Your task to perform on an android device: move an email to a new category in the gmail app Image 0: 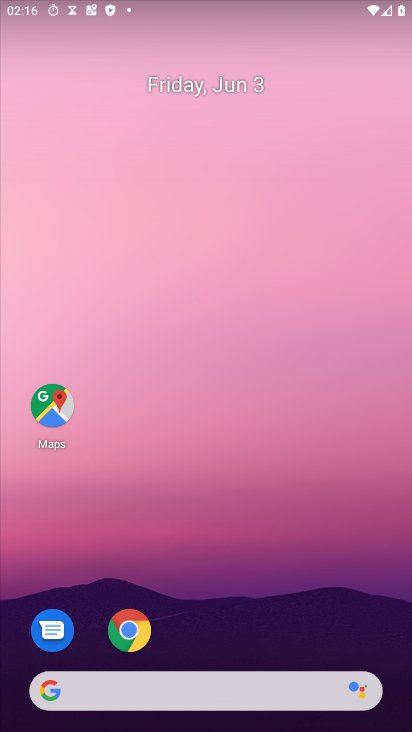
Step 0: drag from (253, 610) to (235, 17)
Your task to perform on an android device: move an email to a new category in the gmail app Image 1: 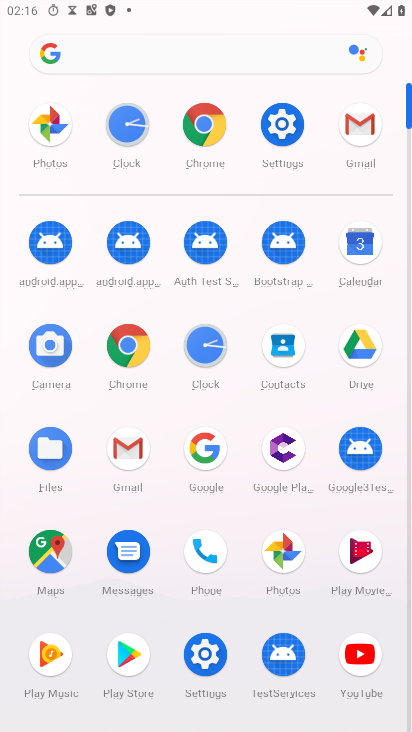
Step 1: click (365, 113)
Your task to perform on an android device: move an email to a new category in the gmail app Image 2: 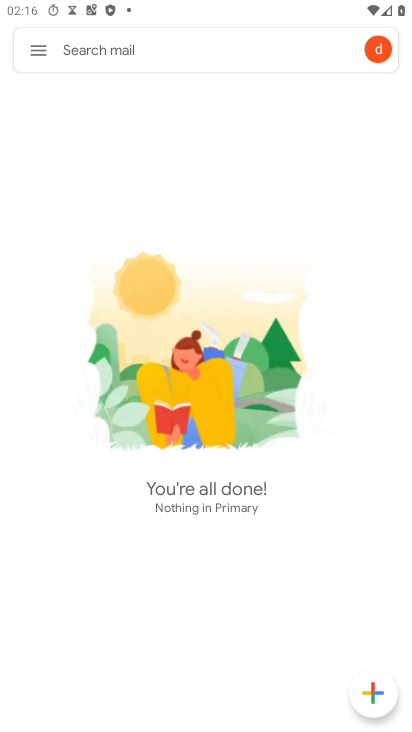
Step 2: task complete